Your task to perform on an android device: Open Youtube and go to the subscriptions tab Image 0: 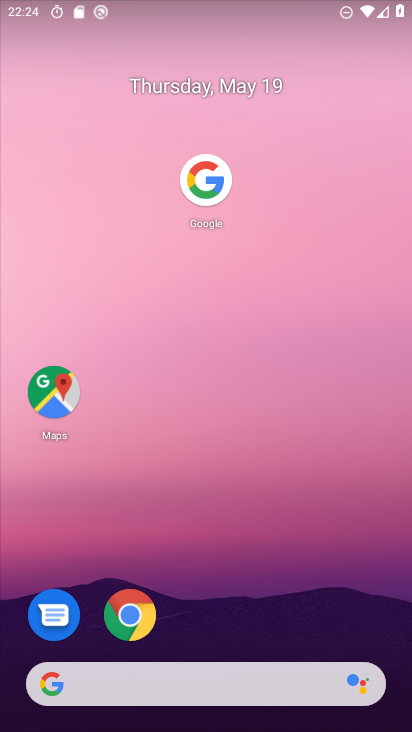
Step 0: drag from (244, 513) to (305, 44)
Your task to perform on an android device: Open Youtube and go to the subscriptions tab Image 1: 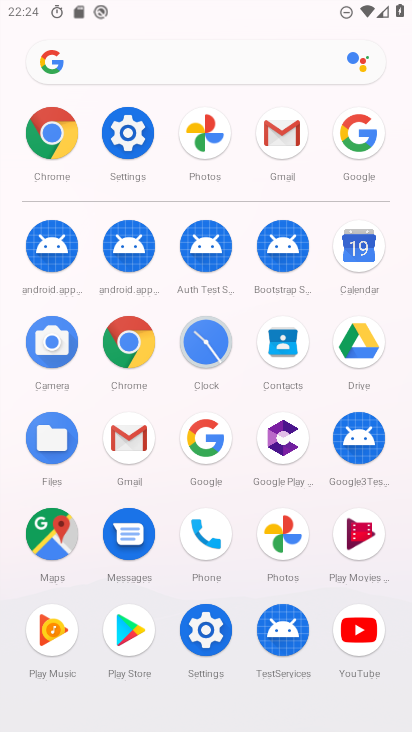
Step 1: click (362, 626)
Your task to perform on an android device: Open Youtube and go to the subscriptions tab Image 2: 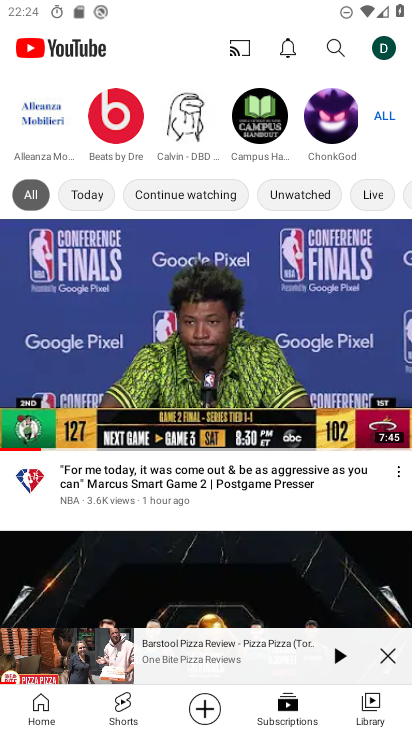
Step 2: click (285, 703)
Your task to perform on an android device: Open Youtube and go to the subscriptions tab Image 3: 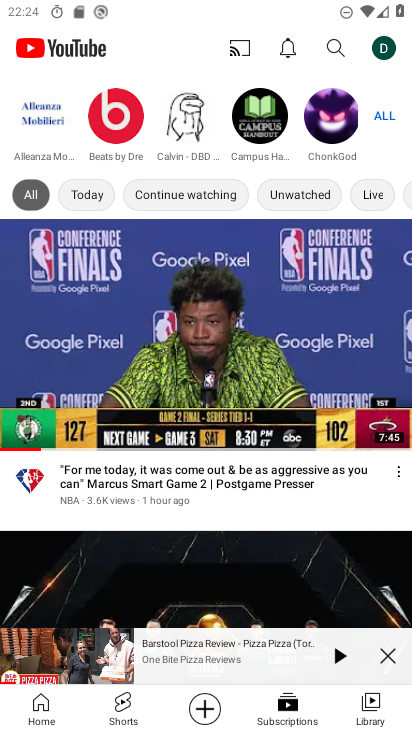
Step 3: task complete